Your task to perform on an android device: Go to calendar. Show me events next week Image 0: 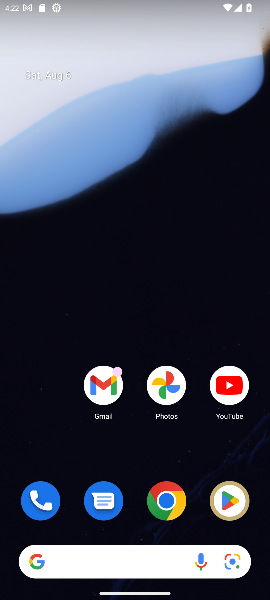
Step 0: drag from (58, 184) to (140, 22)
Your task to perform on an android device: Go to calendar. Show me events next week Image 1: 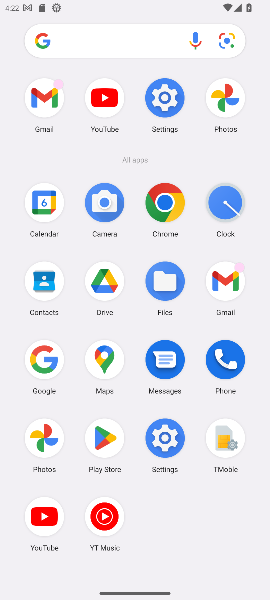
Step 1: click (39, 200)
Your task to perform on an android device: Go to calendar. Show me events next week Image 2: 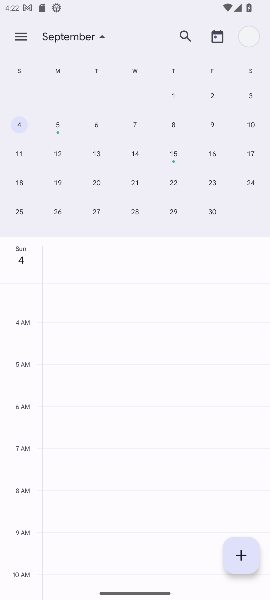
Step 2: click (92, 35)
Your task to perform on an android device: Go to calendar. Show me events next week Image 3: 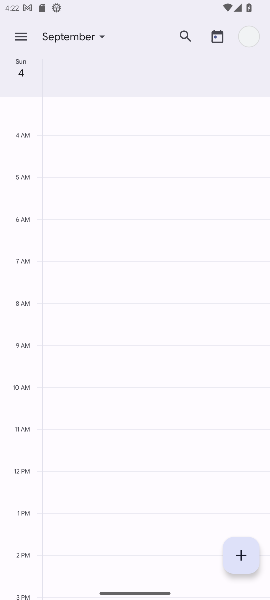
Step 3: click (71, 31)
Your task to perform on an android device: Go to calendar. Show me events next week Image 4: 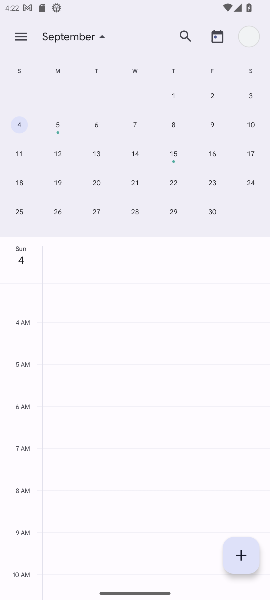
Step 4: click (12, 147)
Your task to perform on an android device: Go to calendar. Show me events next week Image 5: 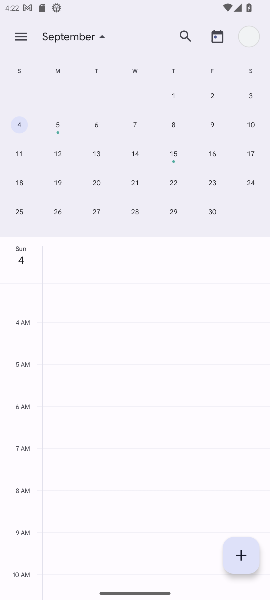
Step 5: click (26, 150)
Your task to perform on an android device: Go to calendar. Show me events next week Image 6: 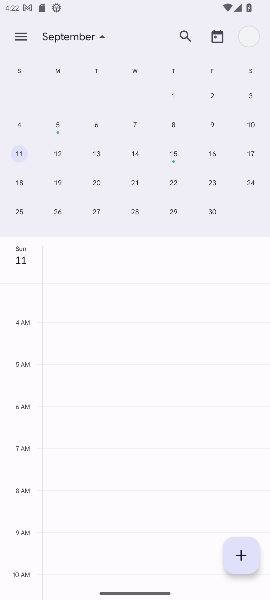
Step 6: task complete